Your task to perform on an android device: allow notifications from all sites in the chrome app Image 0: 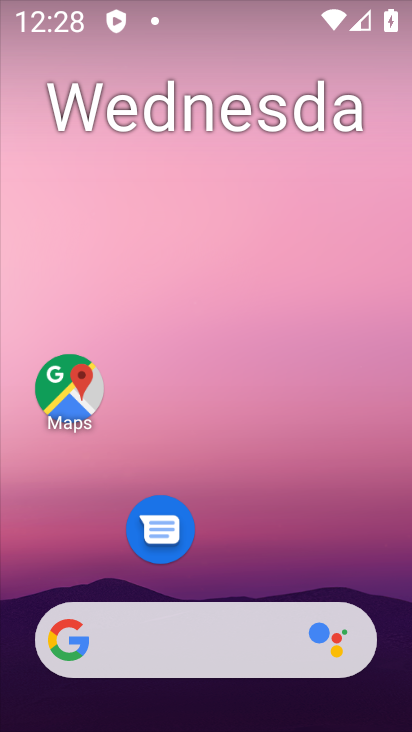
Step 0: click (146, 635)
Your task to perform on an android device: allow notifications from all sites in the chrome app Image 1: 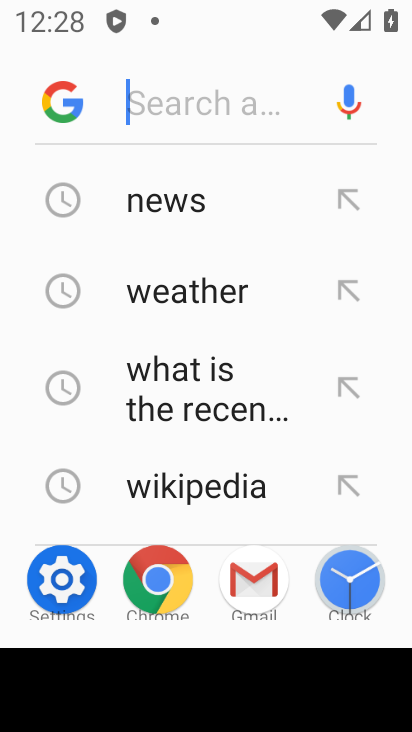
Step 1: click (190, 211)
Your task to perform on an android device: allow notifications from all sites in the chrome app Image 2: 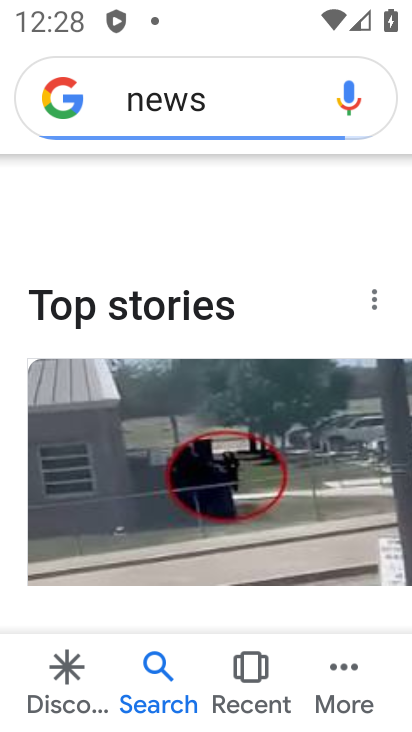
Step 2: task complete